Your task to perform on an android device: Open Chrome and go to settings Image 0: 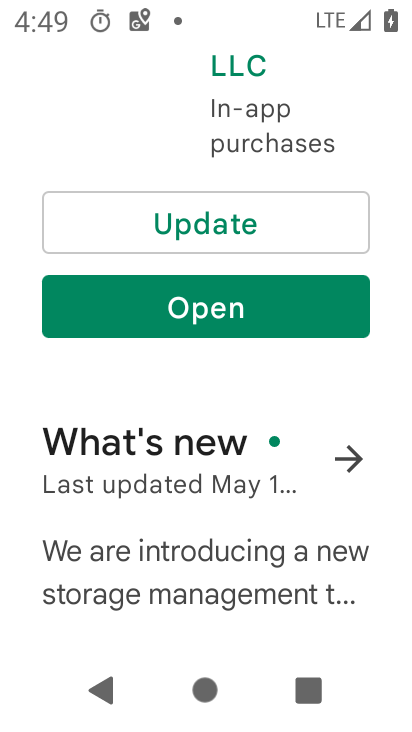
Step 0: press home button
Your task to perform on an android device: Open Chrome and go to settings Image 1: 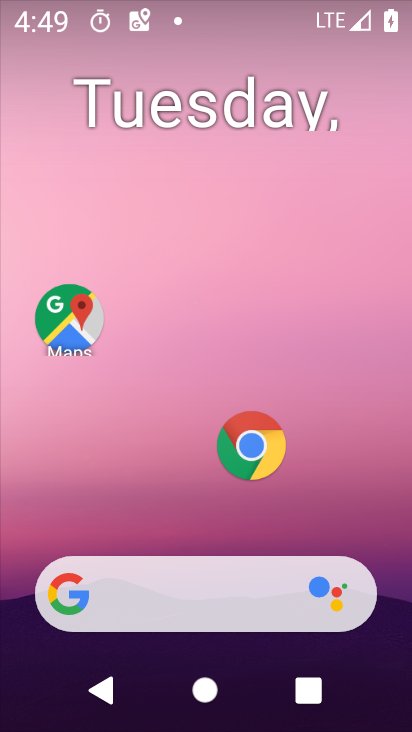
Step 1: click (265, 456)
Your task to perform on an android device: Open Chrome and go to settings Image 2: 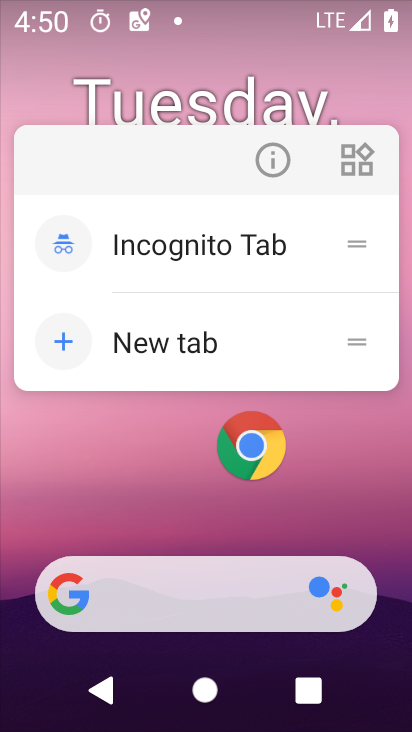
Step 2: click (245, 446)
Your task to perform on an android device: Open Chrome and go to settings Image 3: 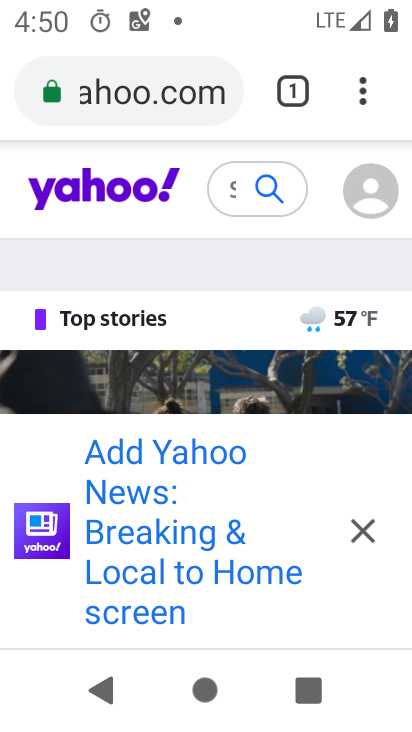
Step 3: click (362, 83)
Your task to perform on an android device: Open Chrome and go to settings Image 4: 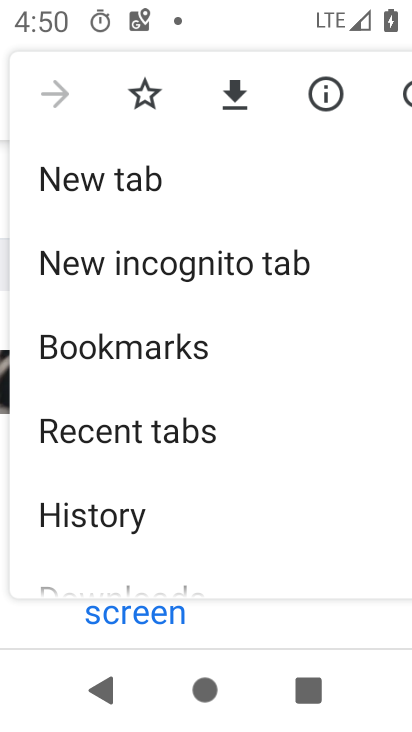
Step 4: drag from (159, 540) to (196, 4)
Your task to perform on an android device: Open Chrome and go to settings Image 5: 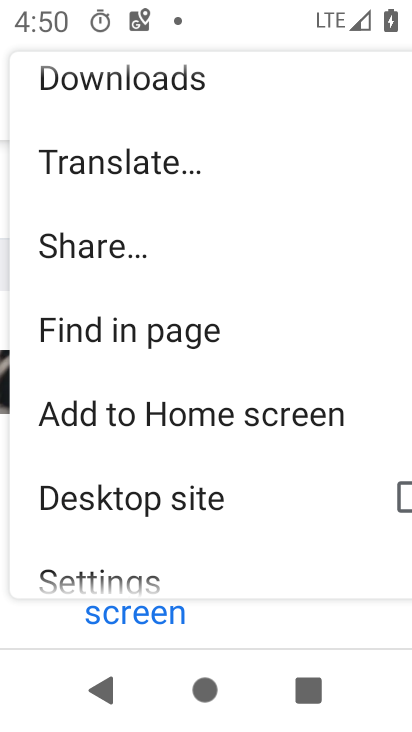
Step 5: drag from (151, 503) to (158, 132)
Your task to perform on an android device: Open Chrome and go to settings Image 6: 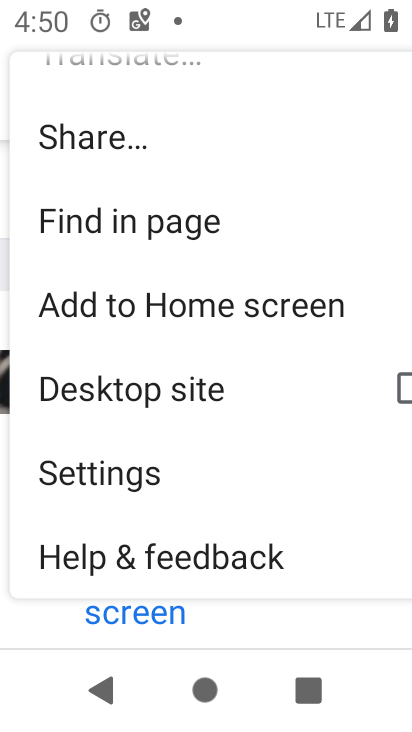
Step 6: click (118, 479)
Your task to perform on an android device: Open Chrome and go to settings Image 7: 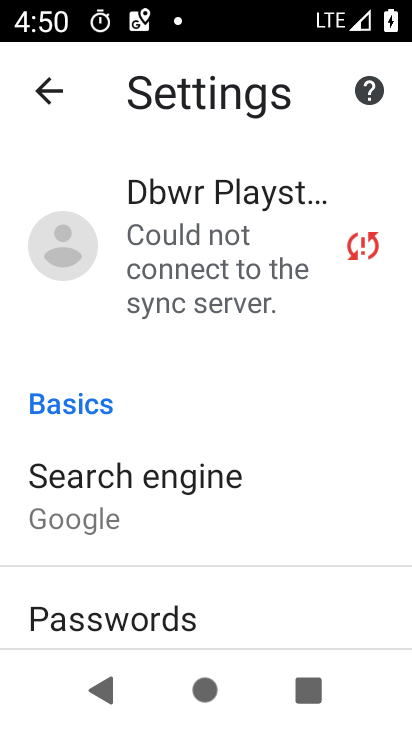
Step 7: task complete